Your task to perform on an android device: empty trash in google photos Image 0: 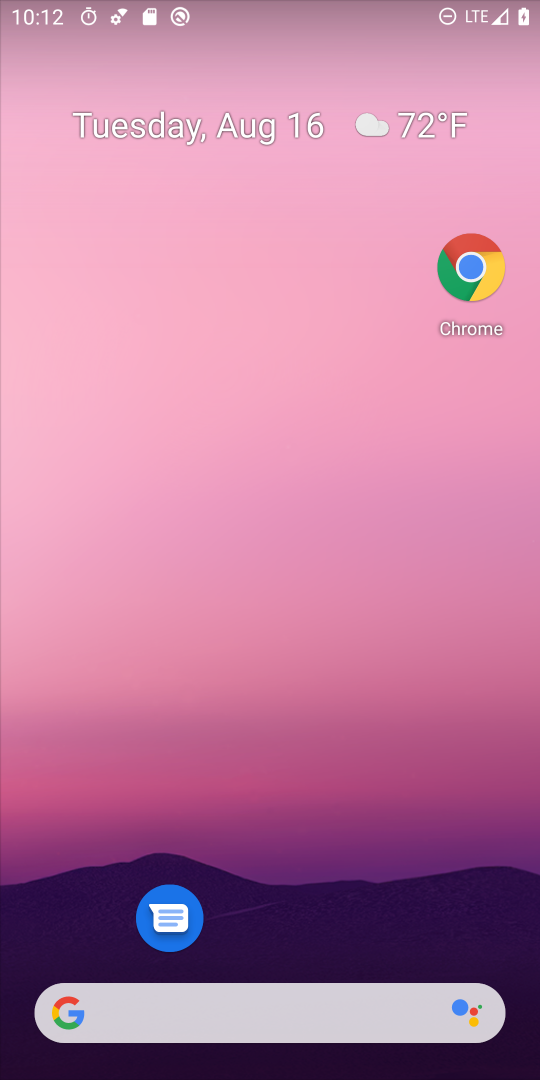
Step 0: drag from (258, 887) to (238, 286)
Your task to perform on an android device: empty trash in google photos Image 1: 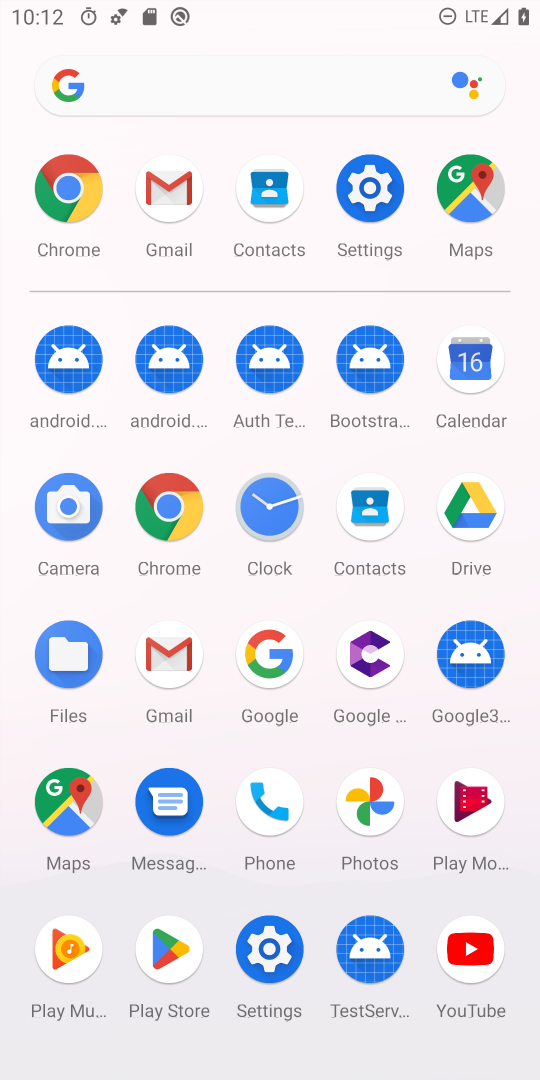
Step 1: click (354, 810)
Your task to perform on an android device: empty trash in google photos Image 2: 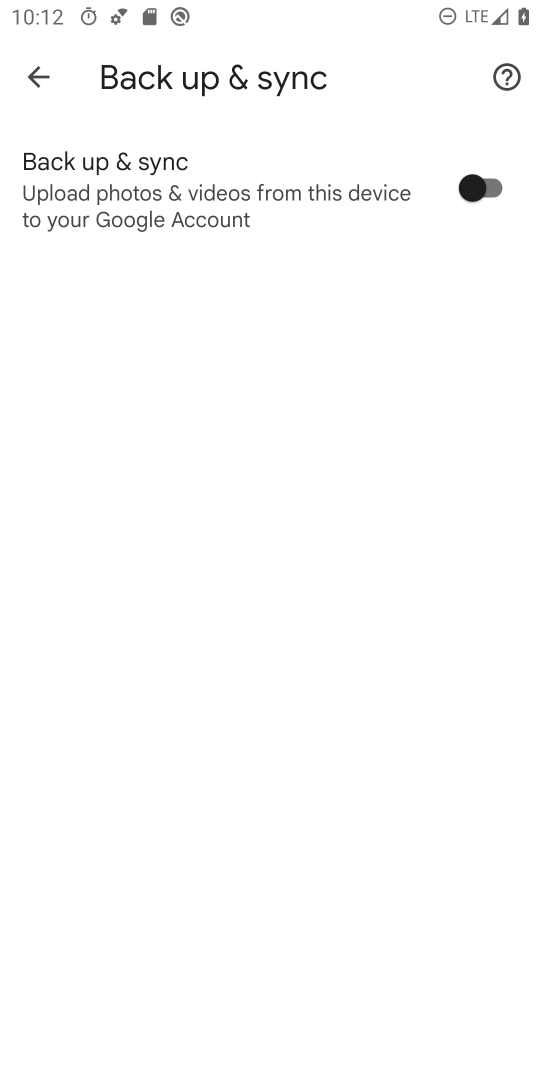
Step 2: click (34, 82)
Your task to perform on an android device: empty trash in google photos Image 3: 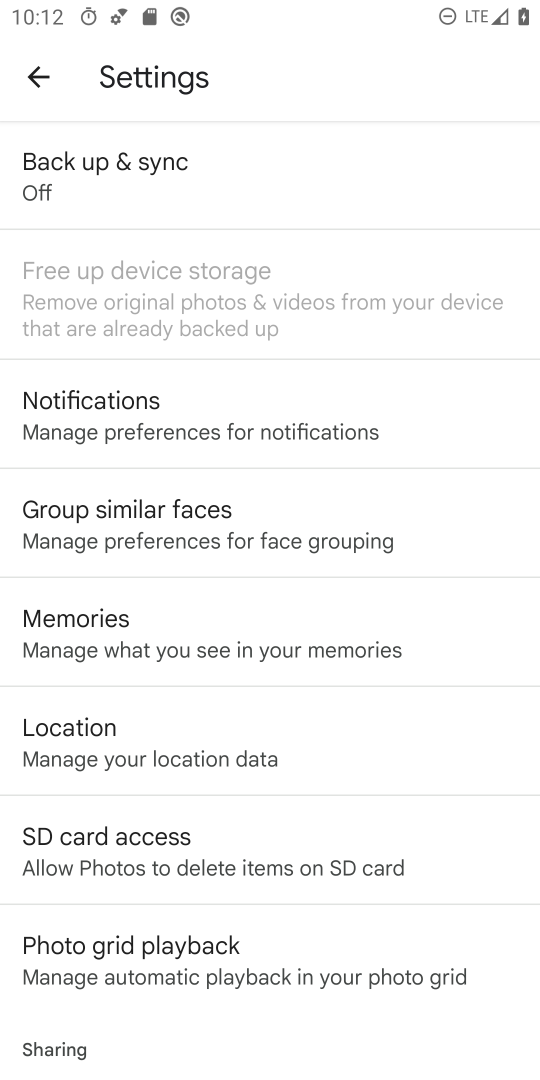
Step 3: click (30, 84)
Your task to perform on an android device: empty trash in google photos Image 4: 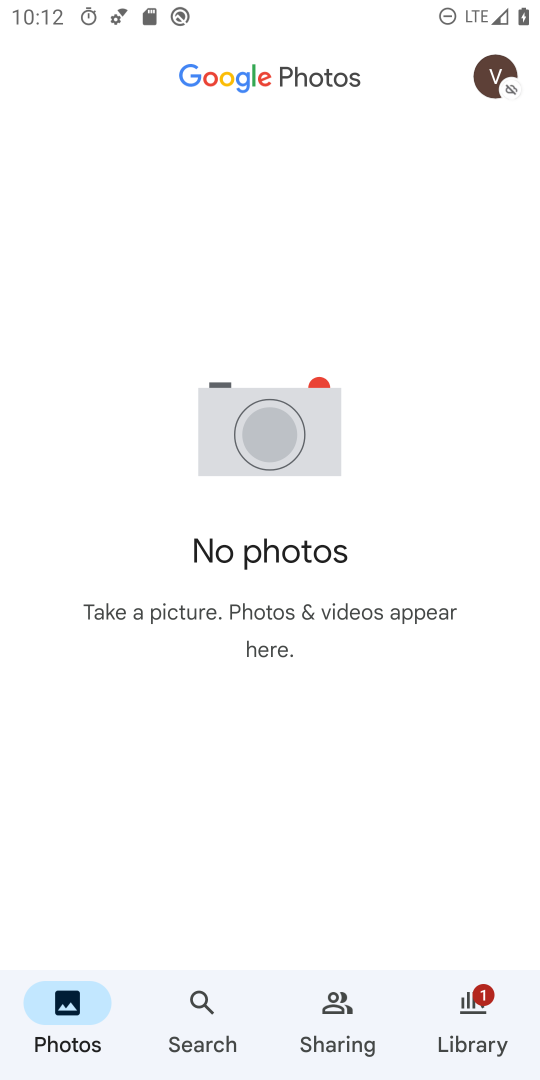
Step 4: click (523, 136)
Your task to perform on an android device: empty trash in google photos Image 5: 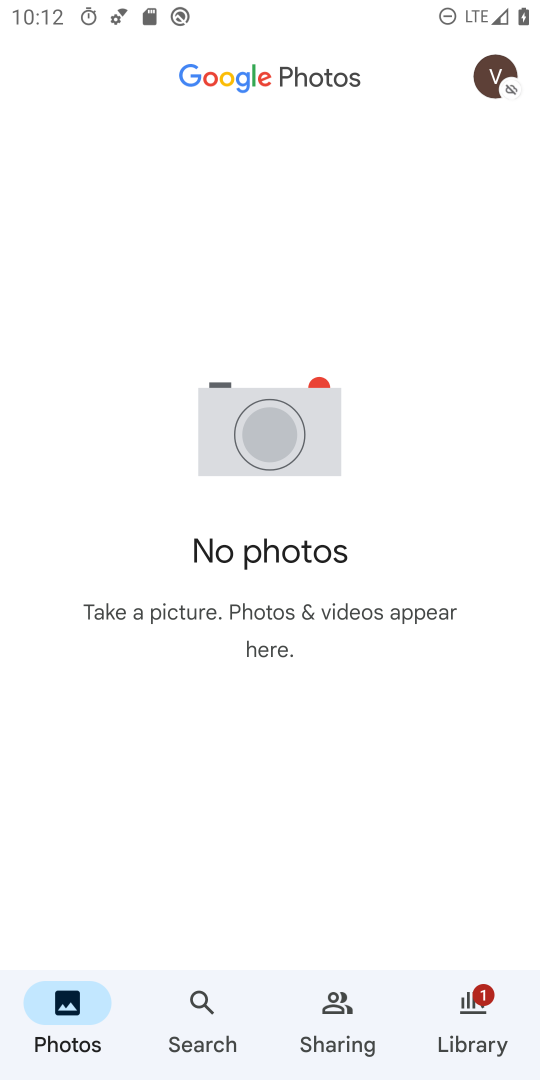
Step 5: click (498, 85)
Your task to perform on an android device: empty trash in google photos Image 6: 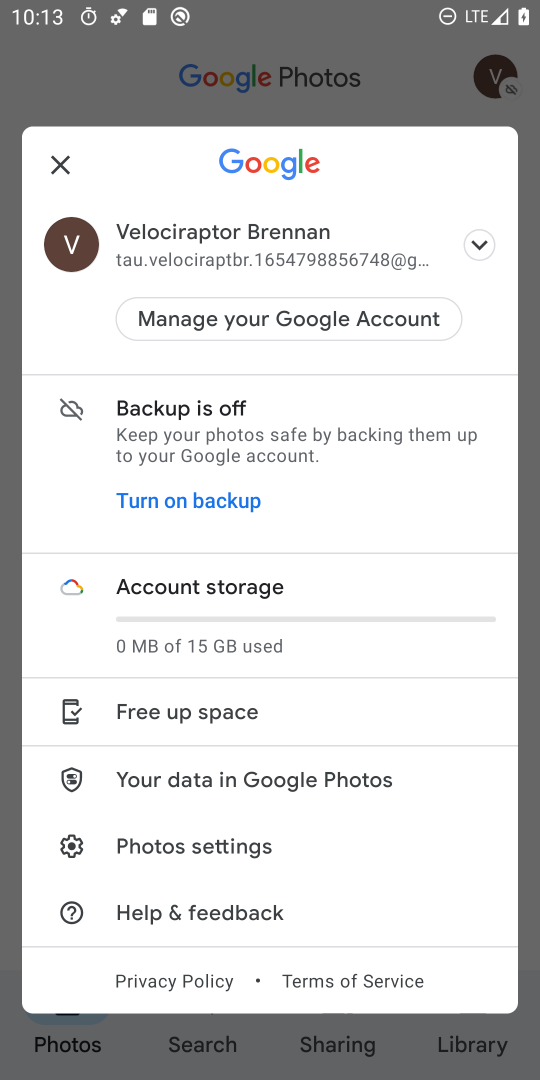
Step 6: task complete